Your task to perform on an android device: Open settings Image 0: 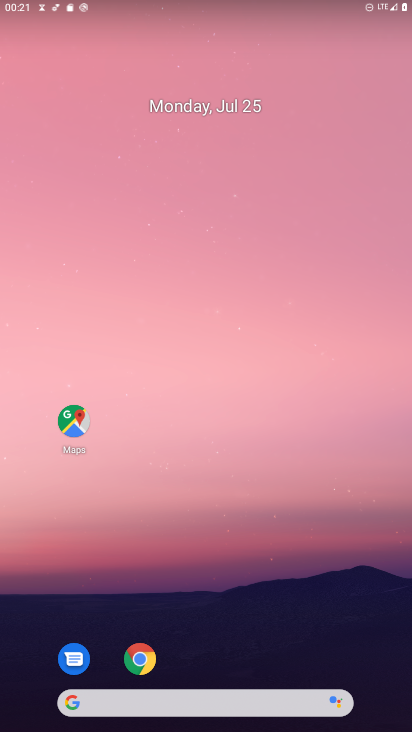
Step 0: drag from (286, 586) to (290, 220)
Your task to perform on an android device: Open settings Image 1: 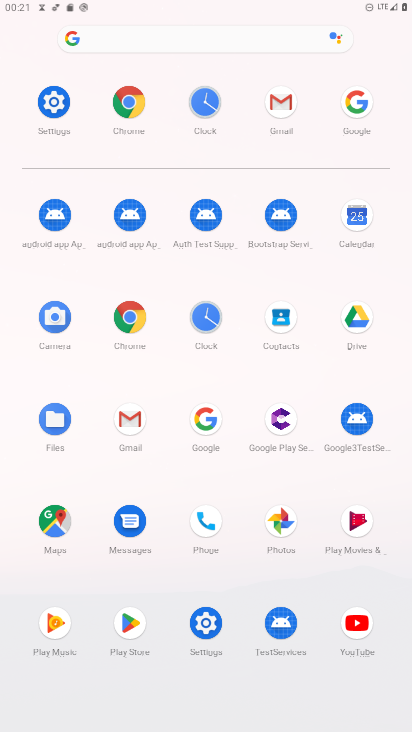
Step 1: click (56, 104)
Your task to perform on an android device: Open settings Image 2: 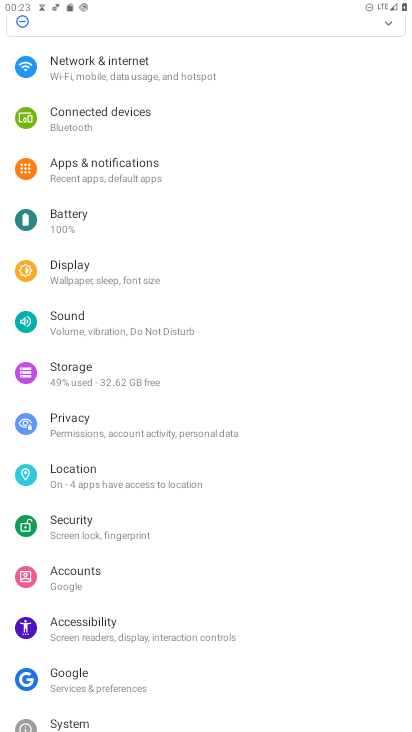
Step 2: task complete